Your task to perform on an android device: Open Youtube and go to the subscriptions tab Image 0: 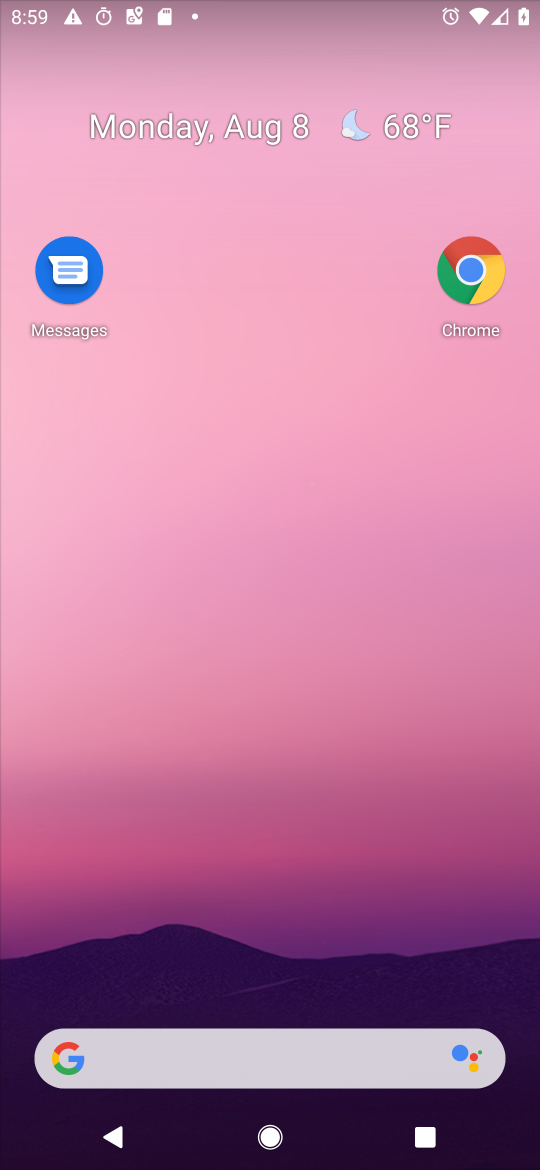
Step 0: drag from (267, 942) to (329, 245)
Your task to perform on an android device: Open Youtube and go to the subscriptions tab Image 1: 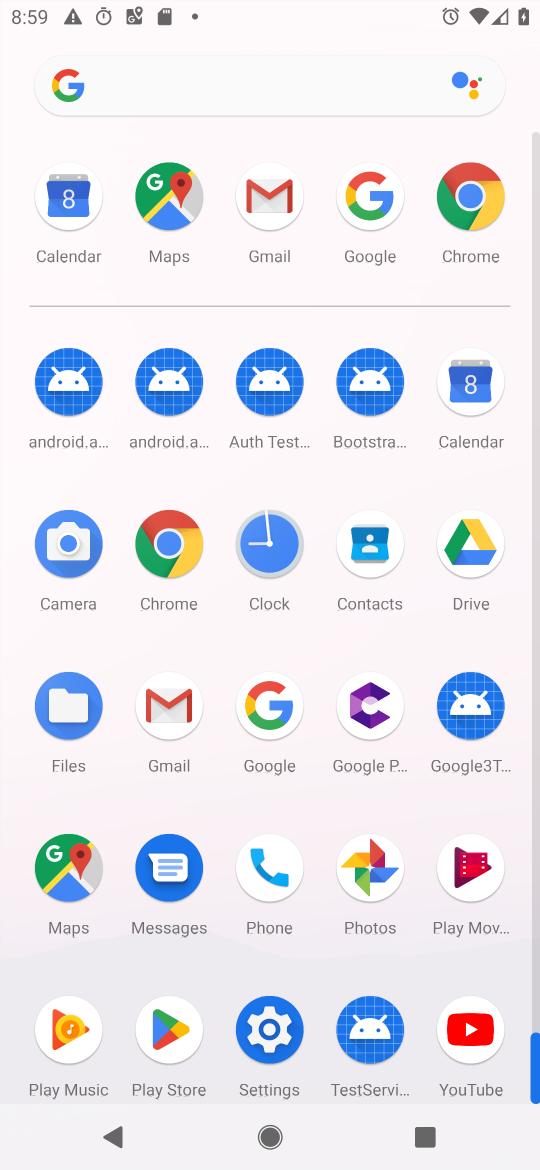
Step 1: click (470, 1040)
Your task to perform on an android device: Open Youtube and go to the subscriptions tab Image 2: 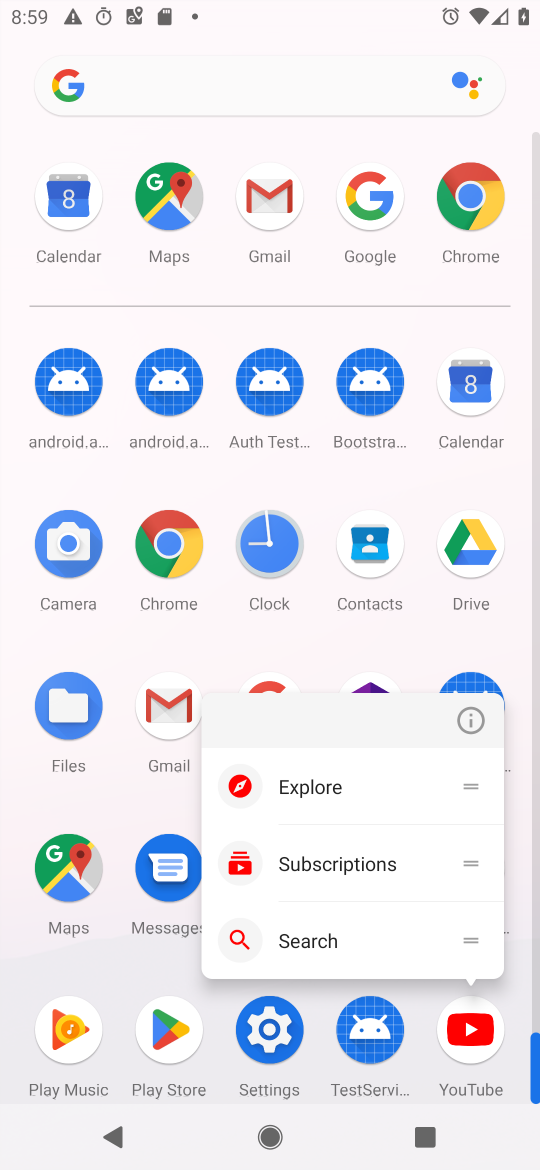
Step 2: click (459, 726)
Your task to perform on an android device: Open Youtube and go to the subscriptions tab Image 3: 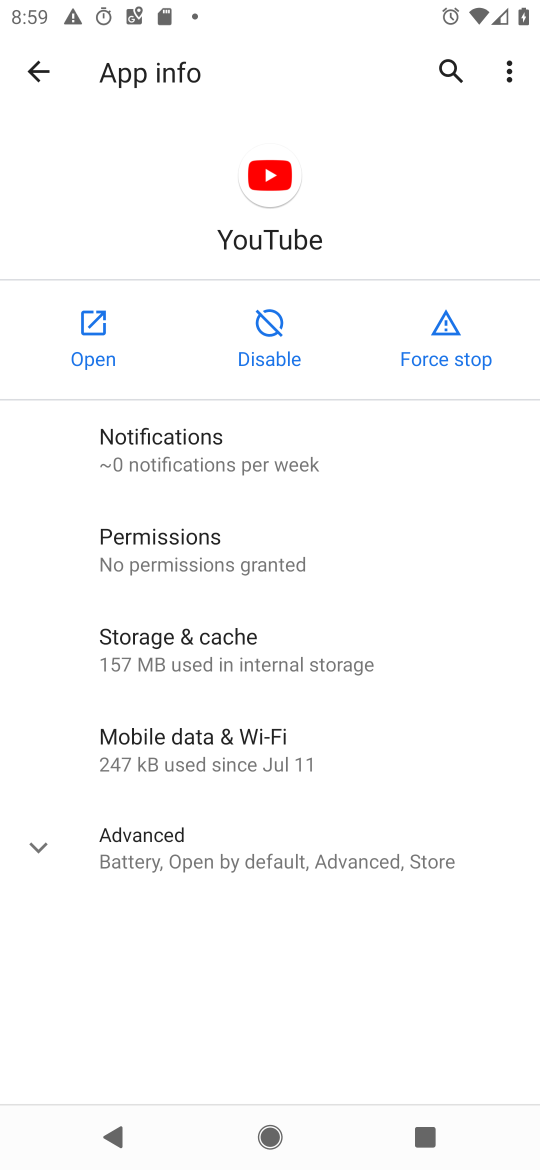
Step 3: click (86, 340)
Your task to perform on an android device: Open Youtube and go to the subscriptions tab Image 4: 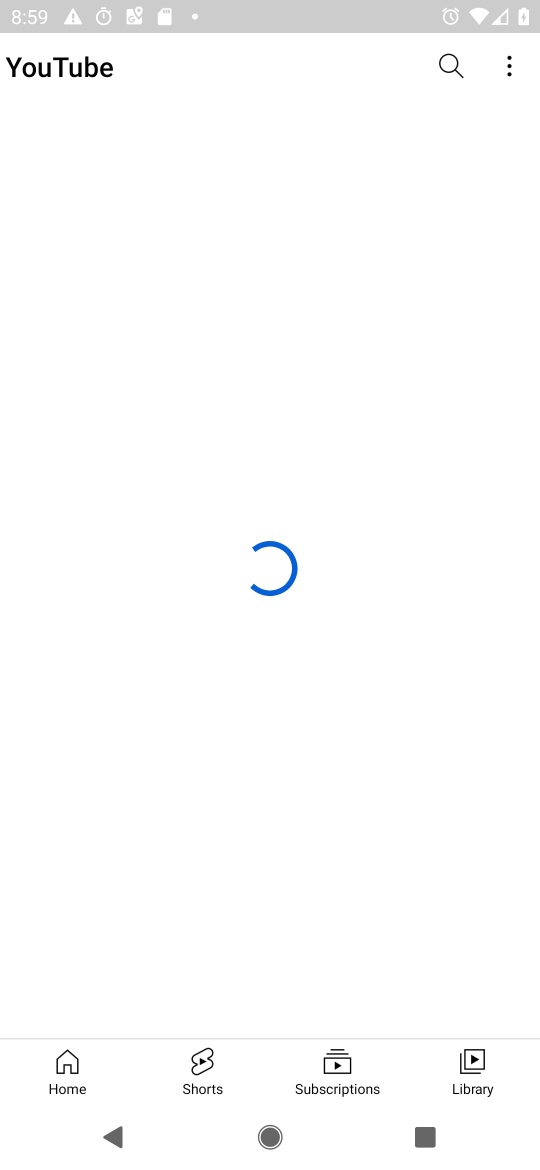
Step 4: click (333, 1069)
Your task to perform on an android device: Open Youtube and go to the subscriptions tab Image 5: 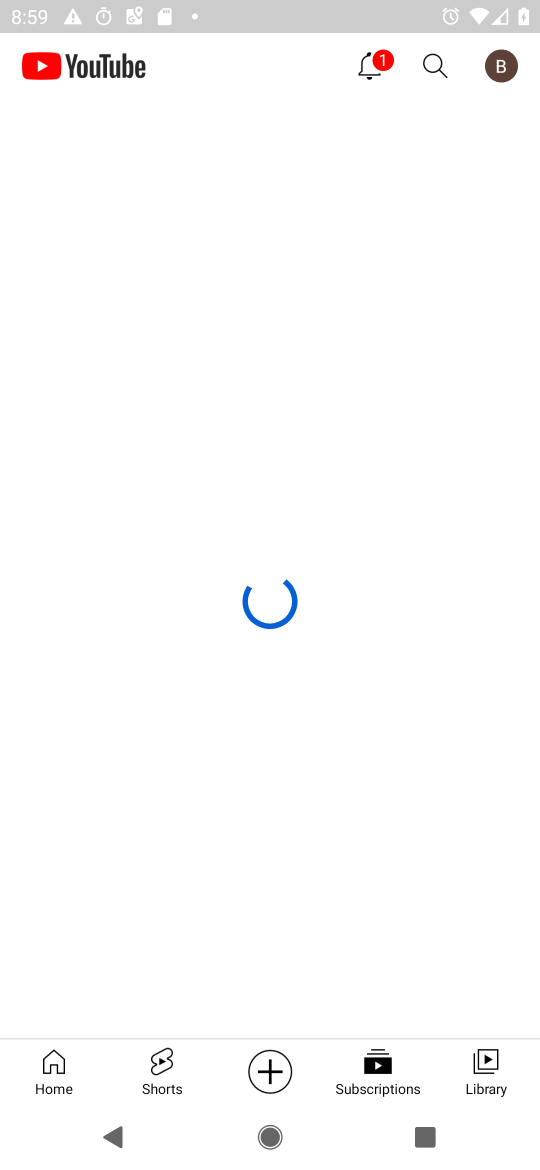
Step 5: drag from (349, 907) to (427, 412)
Your task to perform on an android device: Open Youtube and go to the subscriptions tab Image 6: 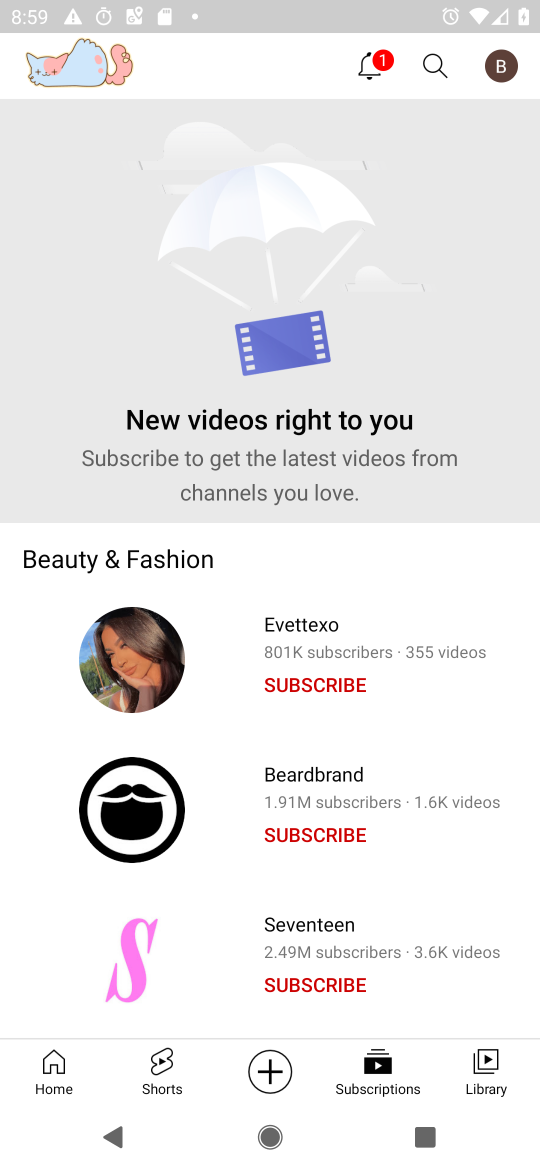
Step 6: drag from (172, 949) to (319, 219)
Your task to perform on an android device: Open Youtube and go to the subscriptions tab Image 7: 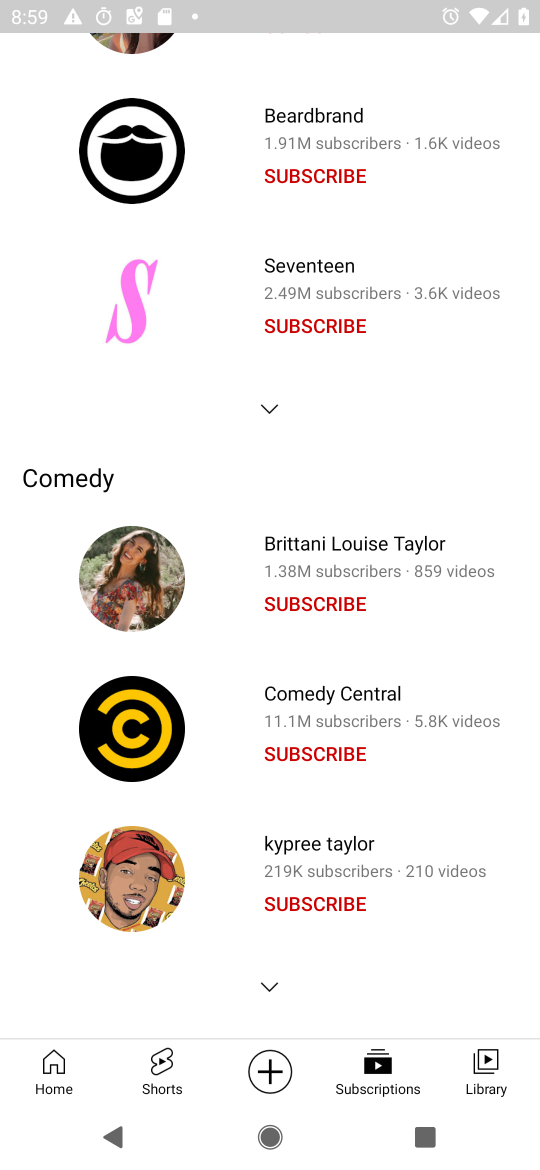
Step 7: drag from (323, 928) to (511, 1070)
Your task to perform on an android device: Open Youtube and go to the subscriptions tab Image 8: 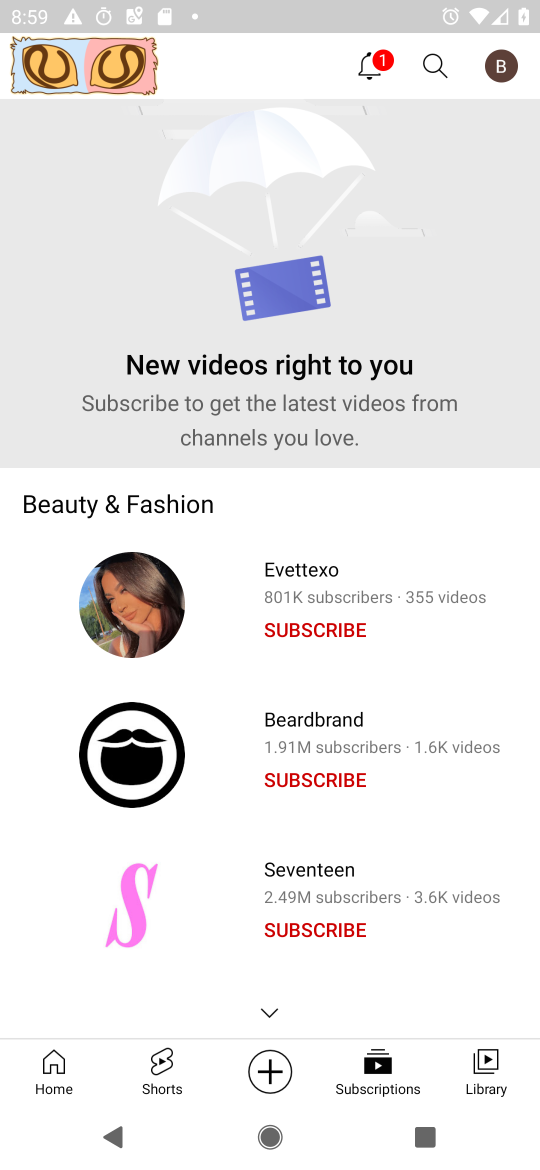
Step 8: drag from (233, 786) to (523, 1034)
Your task to perform on an android device: Open Youtube and go to the subscriptions tab Image 9: 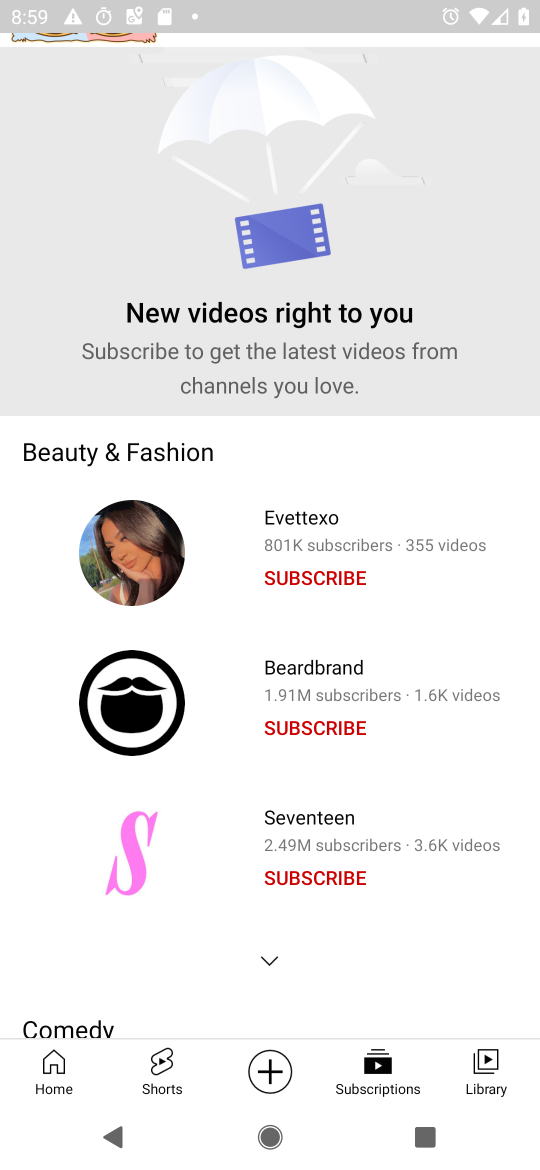
Step 9: click (355, 1059)
Your task to perform on an android device: Open Youtube and go to the subscriptions tab Image 10: 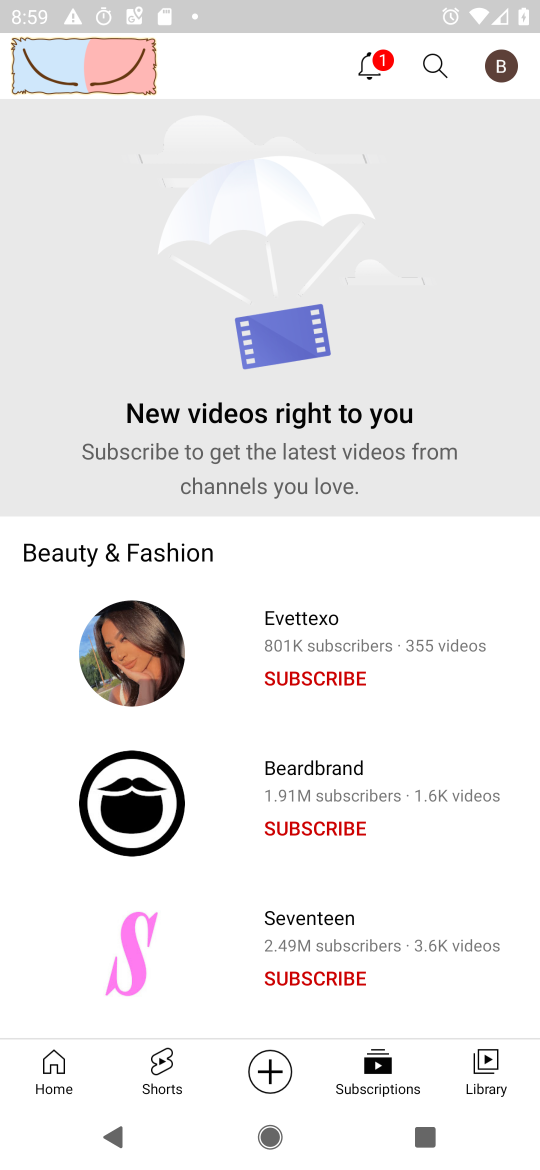
Step 10: task complete